Your task to perform on an android device: Turn on the flashlight Image 0: 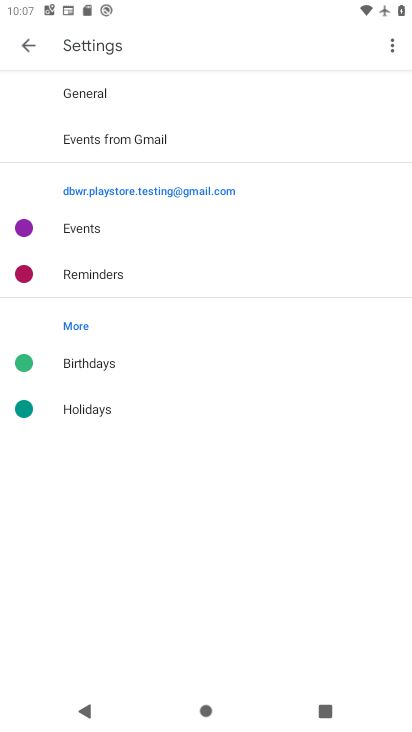
Step 0: press home button
Your task to perform on an android device: Turn on the flashlight Image 1: 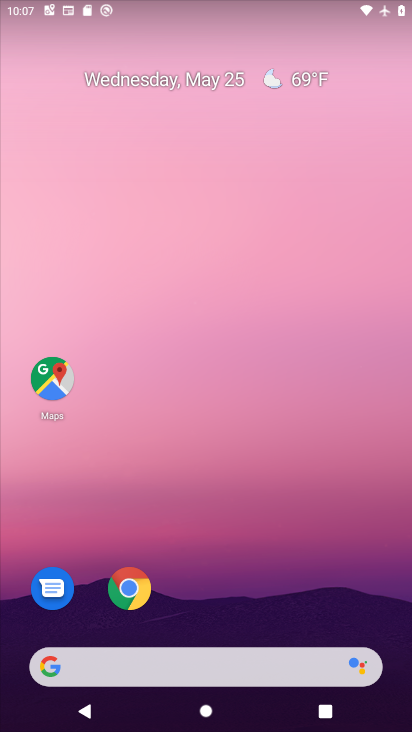
Step 1: drag from (226, 3) to (223, 383)
Your task to perform on an android device: Turn on the flashlight Image 2: 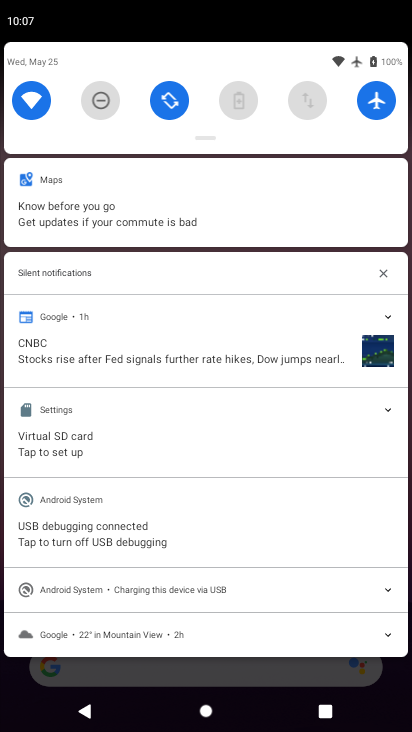
Step 2: drag from (200, 51) to (203, 349)
Your task to perform on an android device: Turn on the flashlight Image 3: 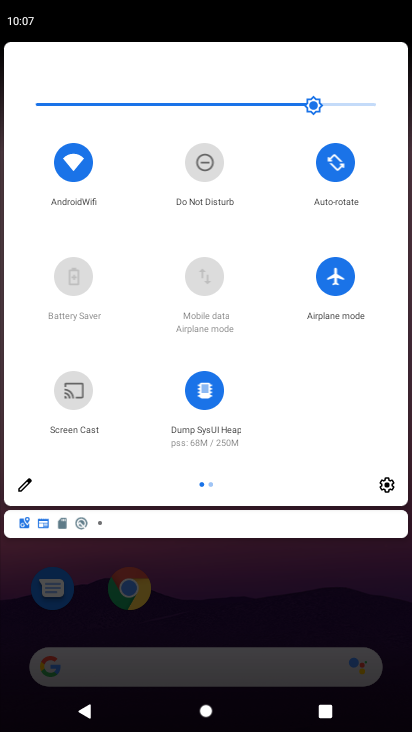
Step 3: click (26, 478)
Your task to perform on an android device: Turn on the flashlight Image 4: 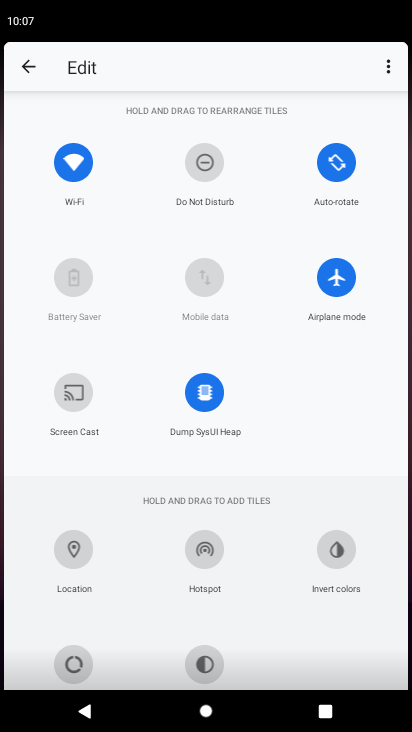
Step 4: task complete